Your task to perform on an android device: change the clock style Image 0: 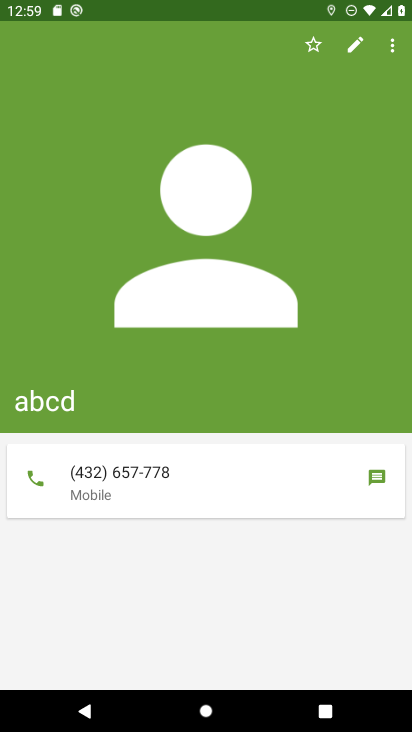
Step 0: press home button
Your task to perform on an android device: change the clock style Image 1: 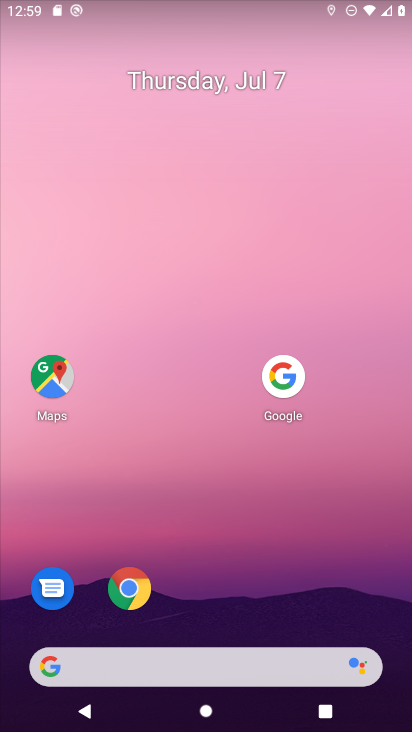
Step 1: drag from (150, 657) to (311, 142)
Your task to perform on an android device: change the clock style Image 2: 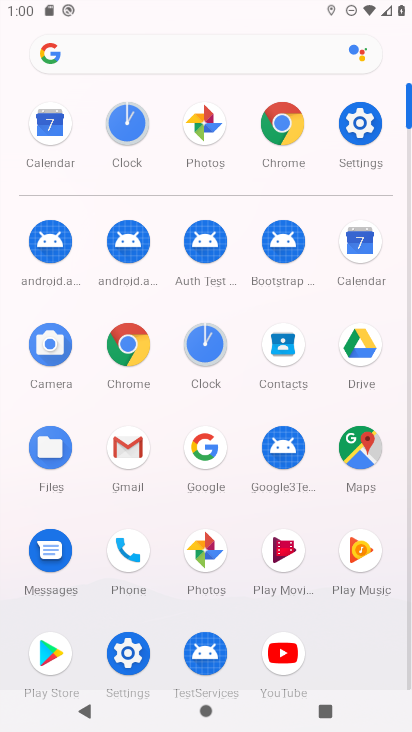
Step 2: click (206, 345)
Your task to perform on an android device: change the clock style Image 3: 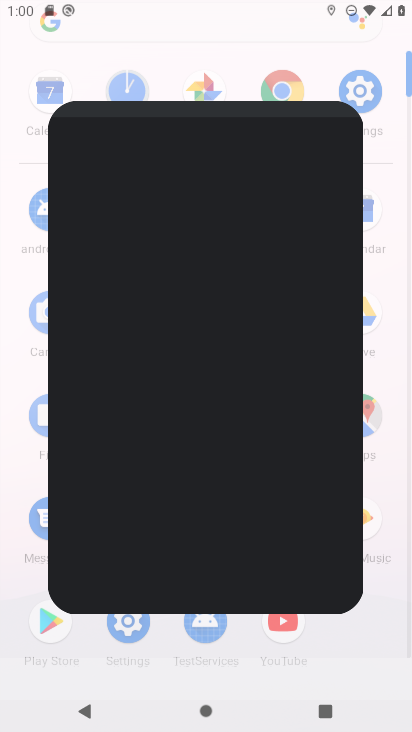
Step 3: click (201, 347)
Your task to perform on an android device: change the clock style Image 4: 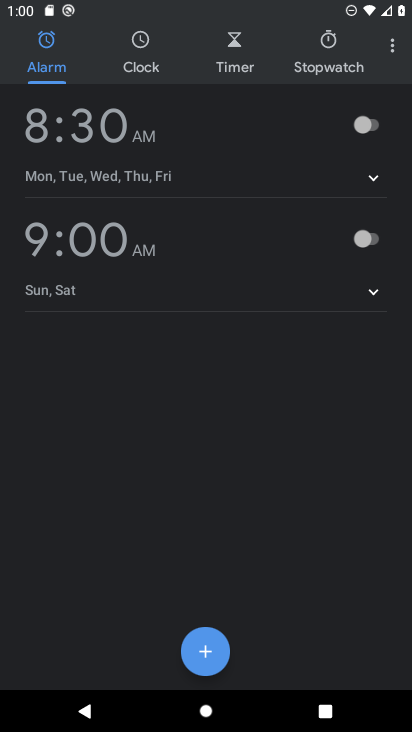
Step 4: click (389, 48)
Your task to perform on an android device: change the clock style Image 5: 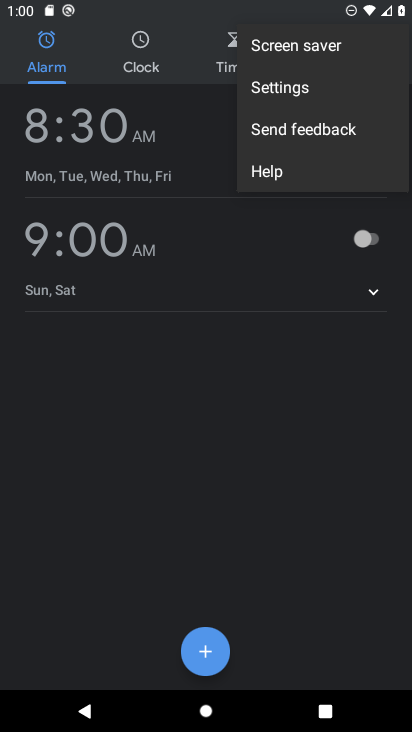
Step 5: click (299, 88)
Your task to perform on an android device: change the clock style Image 6: 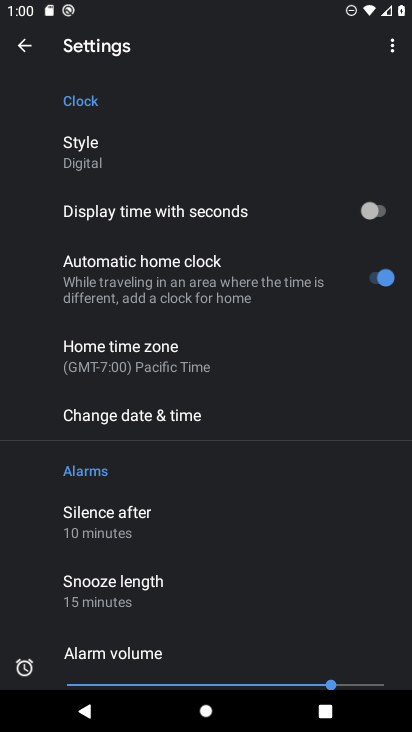
Step 6: click (99, 154)
Your task to perform on an android device: change the clock style Image 7: 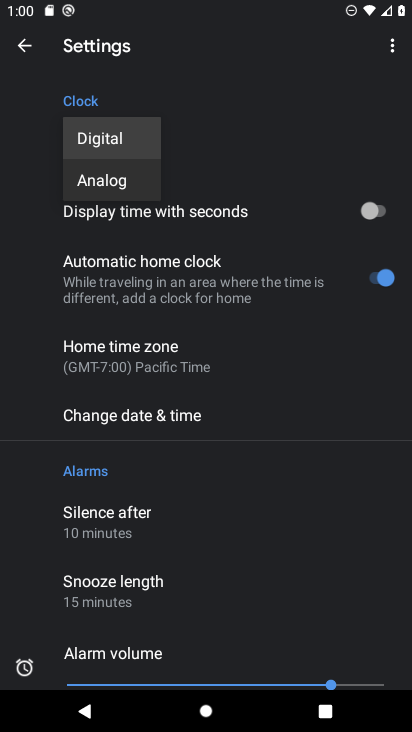
Step 7: click (128, 181)
Your task to perform on an android device: change the clock style Image 8: 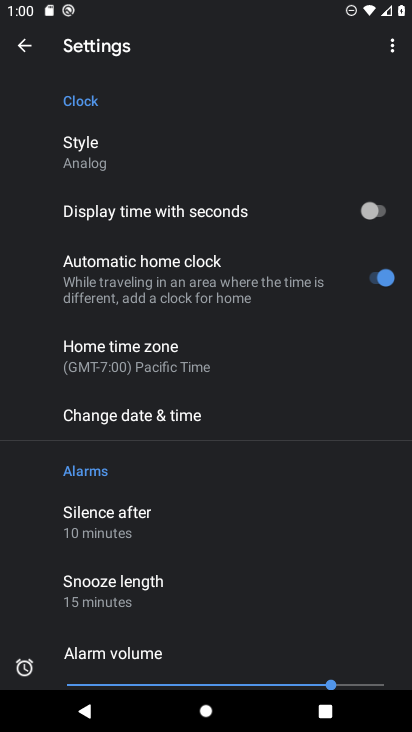
Step 8: task complete